Your task to perform on an android device: toggle data saver in the chrome app Image 0: 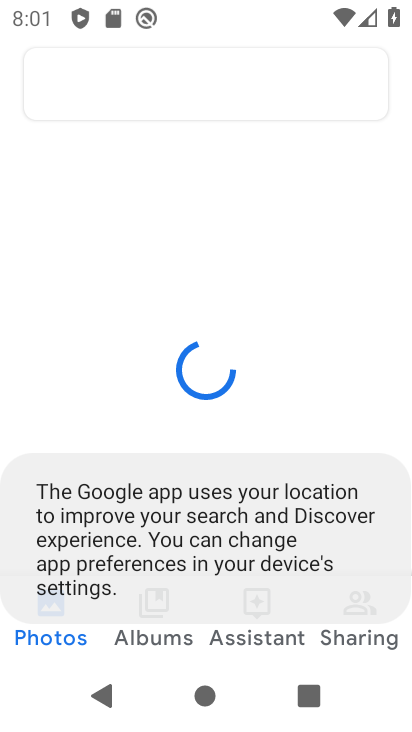
Step 0: press home button
Your task to perform on an android device: toggle data saver in the chrome app Image 1: 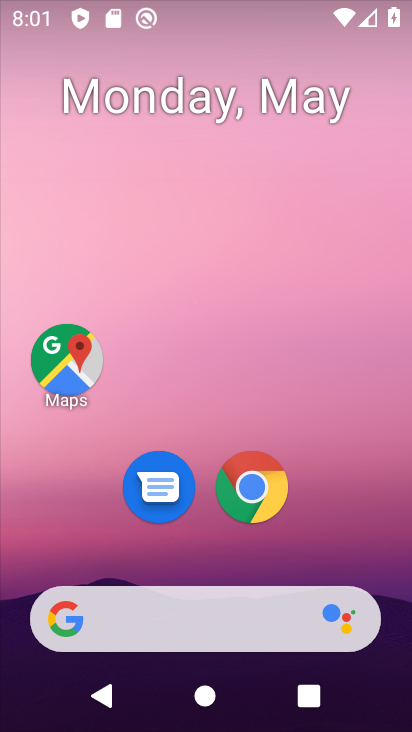
Step 1: click (275, 495)
Your task to perform on an android device: toggle data saver in the chrome app Image 2: 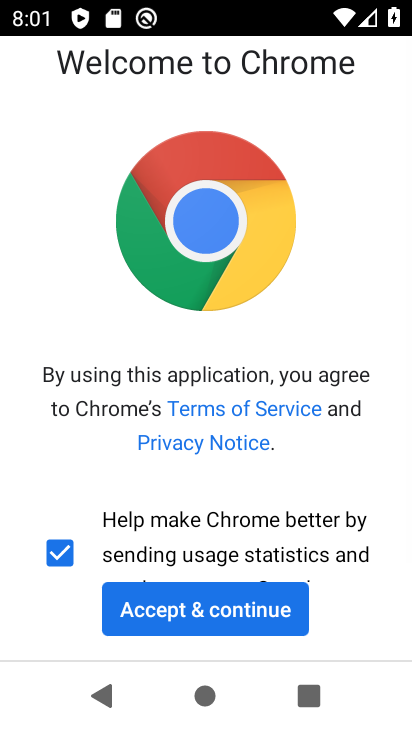
Step 2: click (294, 604)
Your task to perform on an android device: toggle data saver in the chrome app Image 3: 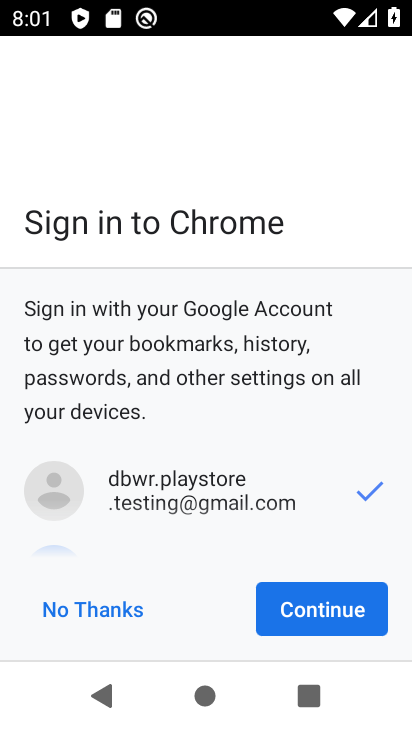
Step 3: click (288, 609)
Your task to perform on an android device: toggle data saver in the chrome app Image 4: 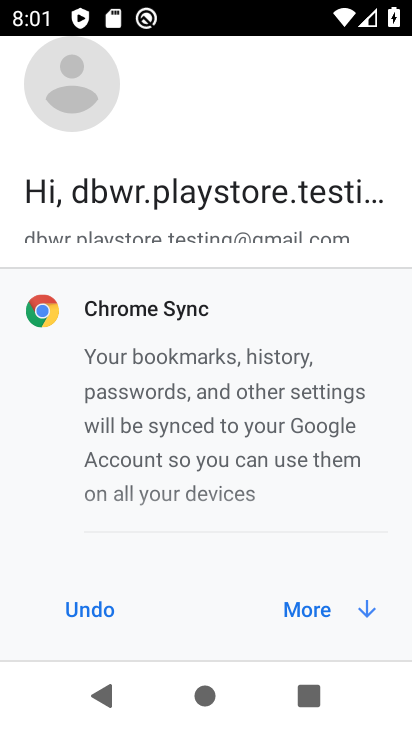
Step 4: click (288, 609)
Your task to perform on an android device: toggle data saver in the chrome app Image 5: 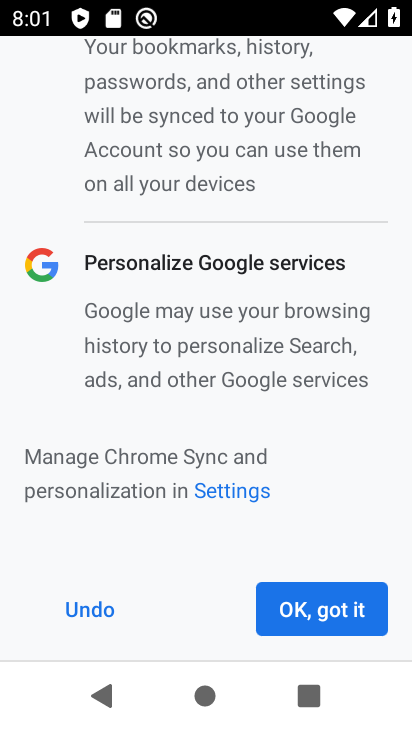
Step 5: click (288, 609)
Your task to perform on an android device: toggle data saver in the chrome app Image 6: 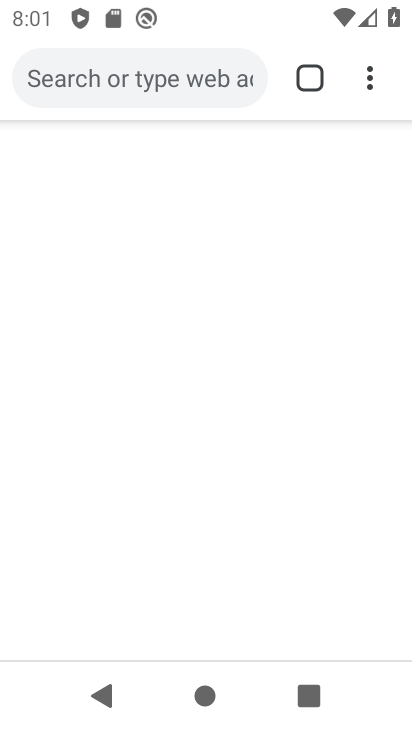
Step 6: click (371, 80)
Your task to perform on an android device: toggle data saver in the chrome app Image 7: 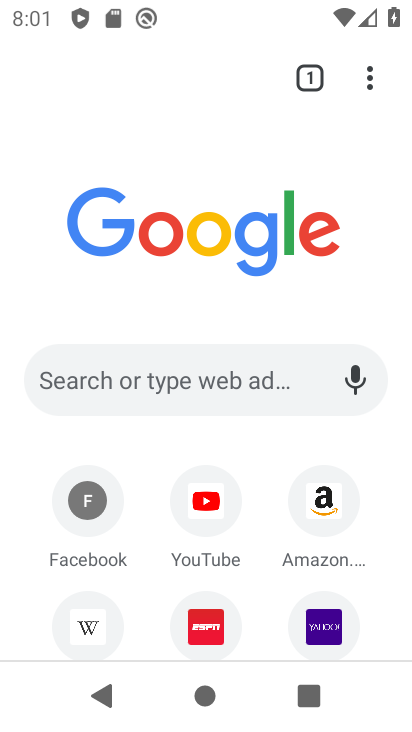
Step 7: click (368, 79)
Your task to perform on an android device: toggle data saver in the chrome app Image 8: 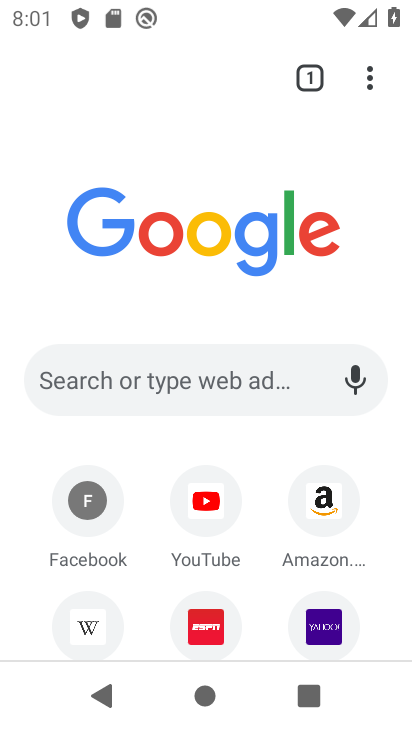
Step 8: click (369, 75)
Your task to perform on an android device: toggle data saver in the chrome app Image 9: 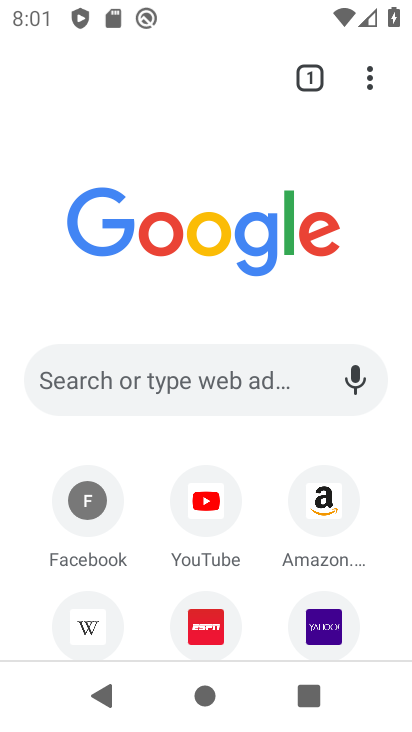
Step 9: click (365, 91)
Your task to perform on an android device: toggle data saver in the chrome app Image 10: 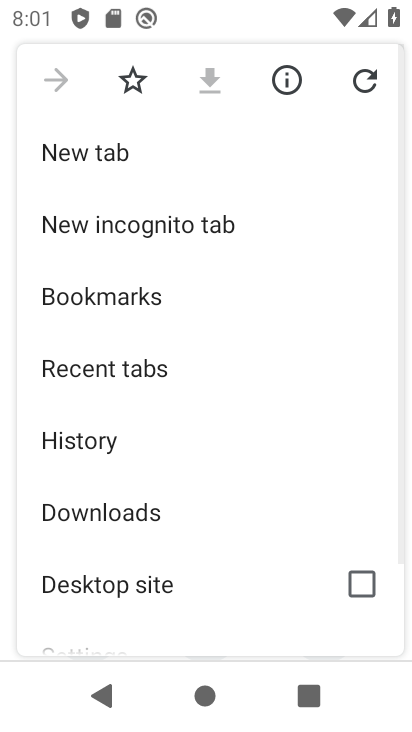
Step 10: drag from (235, 447) to (245, 67)
Your task to perform on an android device: toggle data saver in the chrome app Image 11: 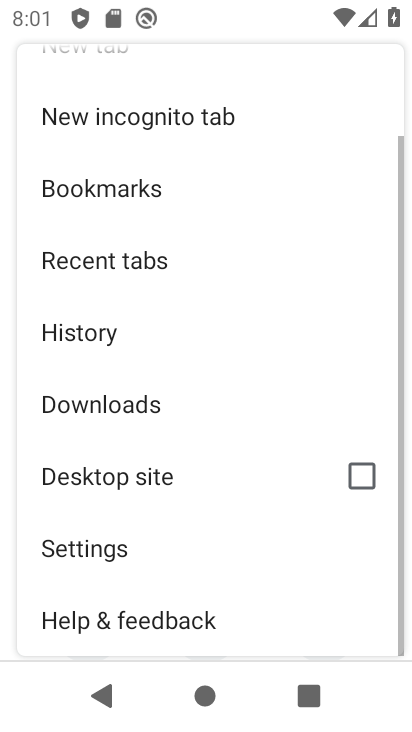
Step 11: click (99, 573)
Your task to perform on an android device: toggle data saver in the chrome app Image 12: 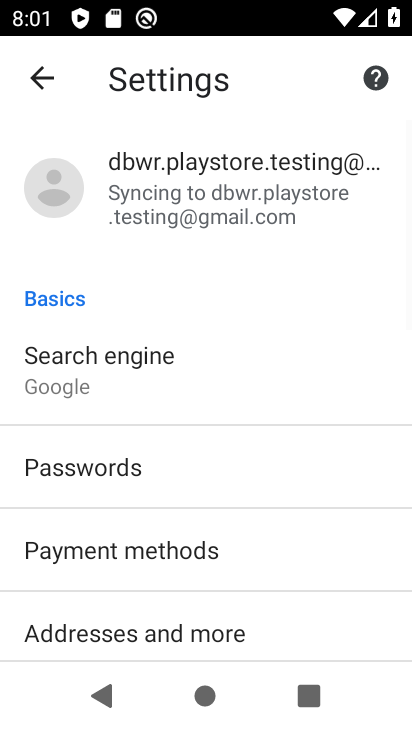
Step 12: click (131, 127)
Your task to perform on an android device: toggle data saver in the chrome app Image 13: 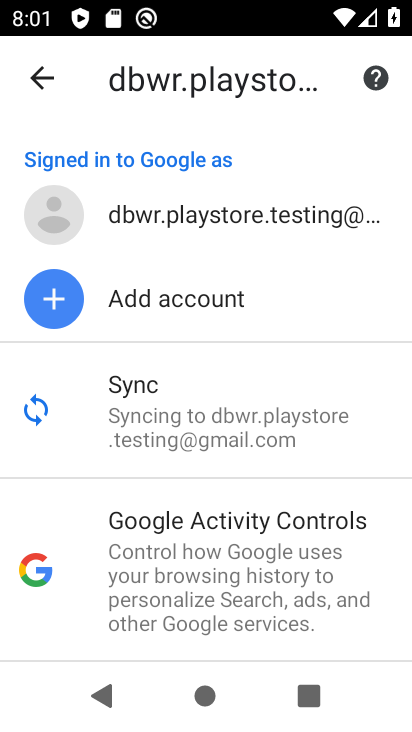
Step 13: click (62, 83)
Your task to perform on an android device: toggle data saver in the chrome app Image 14: 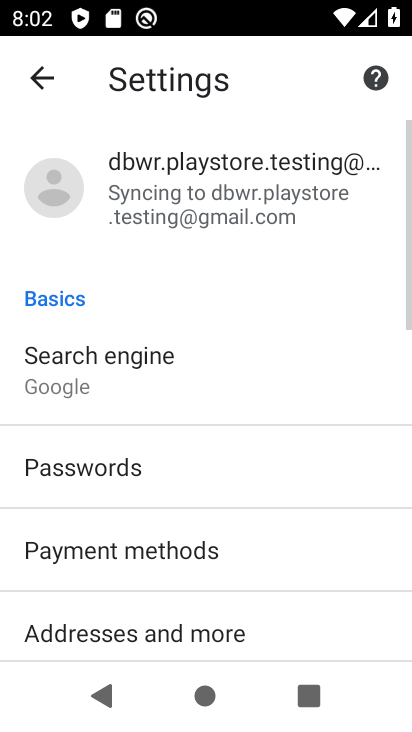
Step 14: drag from (303, 609) to (267, 131)
Your task to perform on an android device: toggle data saver in the chrome app Image 15: 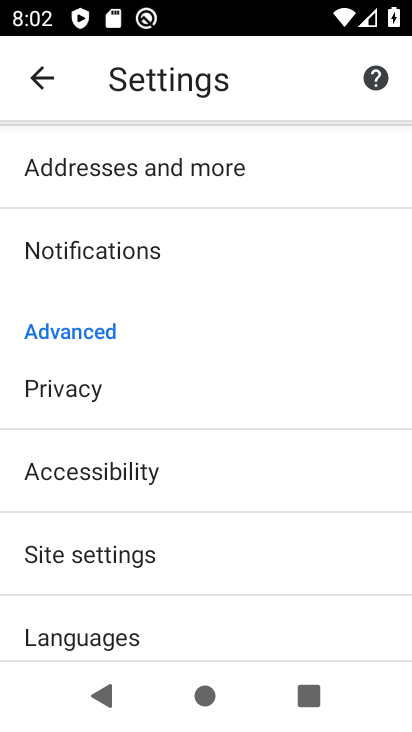
Step 15: drag from (225, 591) to (256, 100)
Your task to perform on an android device: toggle data saver in the chrome app Image 16: 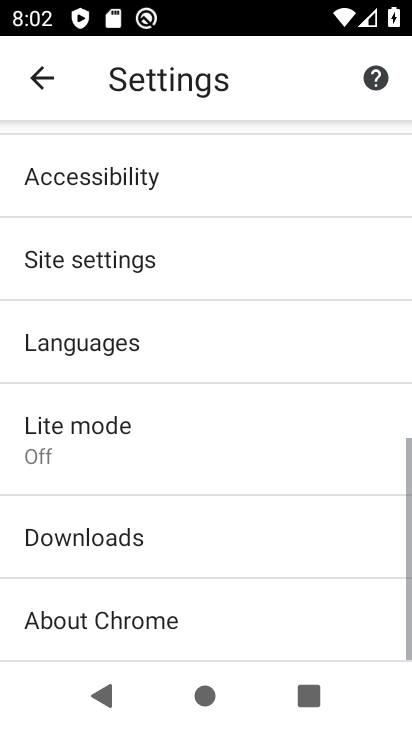
Step 16: drag from (186, 583) to (176, 353)
Your task to perform on an android device: toggle data saver in the chrome app Image 17: 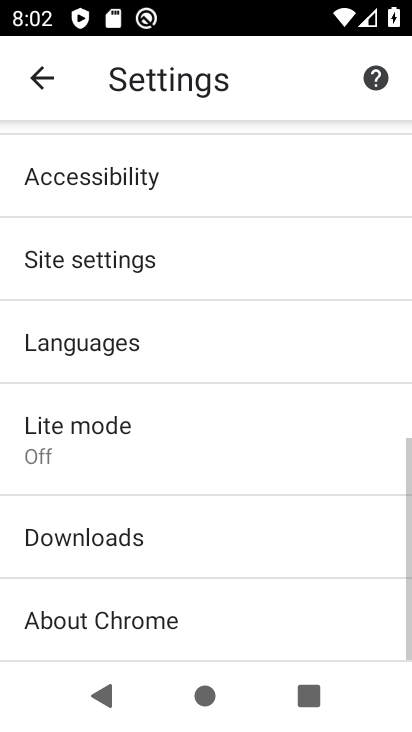
Step 17: click (167, 424)
Your task to perform on an android device: toggle data saver in the chrome app Image 18: 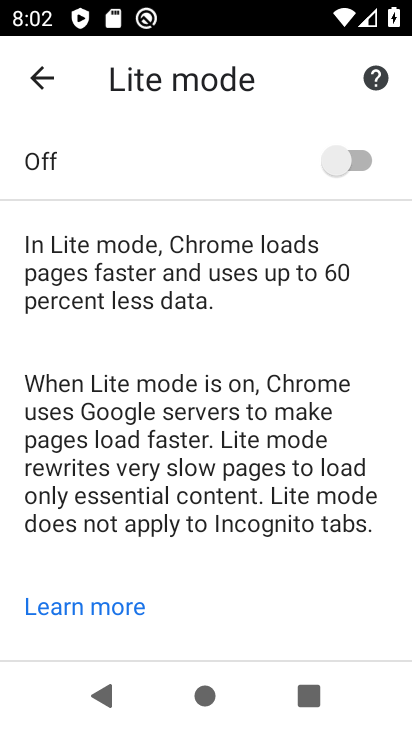
Step 18: click (349, 171)
Your task to perform on an android device: toggle data saver in the chrome app Image 19: 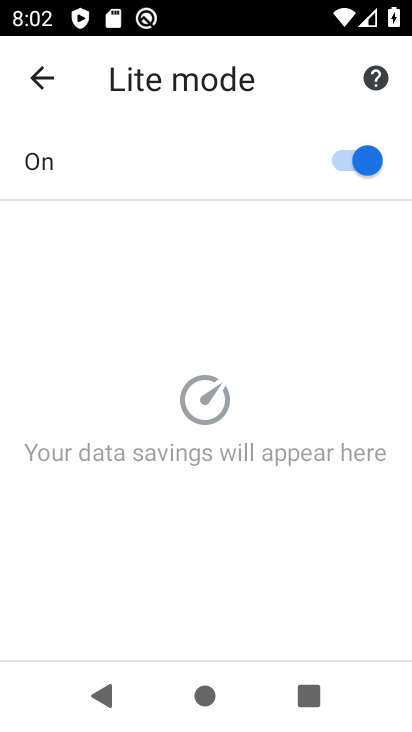
Step 19: task complete